Your task to perform on an android device: Check the weather Image 0: 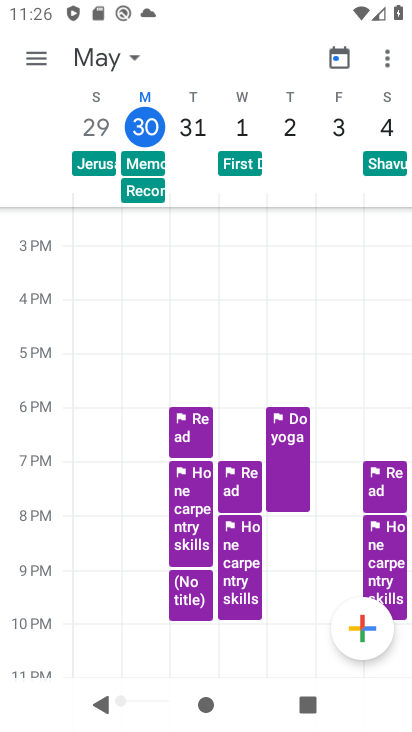
Step 0: press home button
Your task to perform on an android device: Check the weather Image 1: 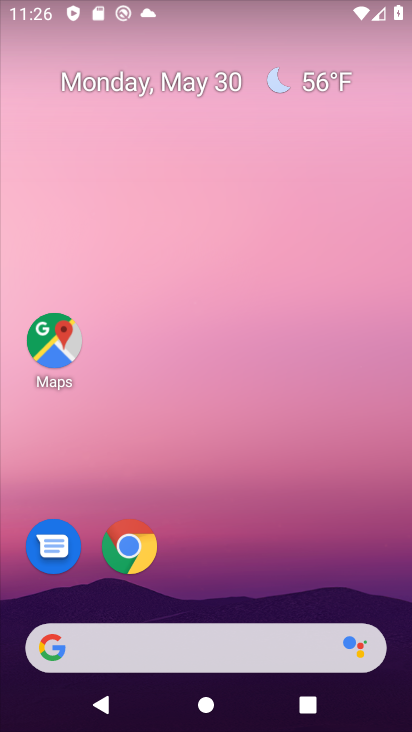
Step 1: drag from (255, 552) to (167, 21)
Your task to perform on an android device: Check the weather Image 2: 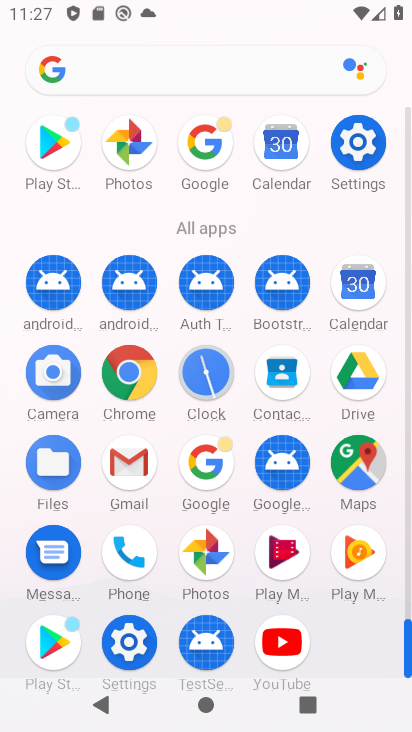
Step 2: click (202, 141)
Your task to perform on an android device: Check the weather Image 3: 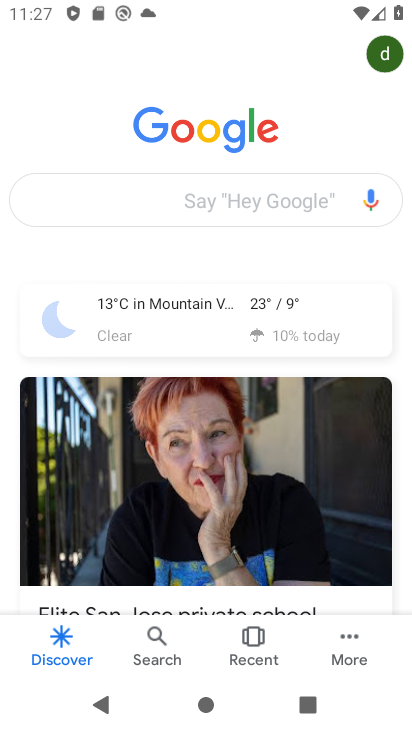
Step 3: click (185, 306)
Your task to perform on an android device: Check the weather Image 4: 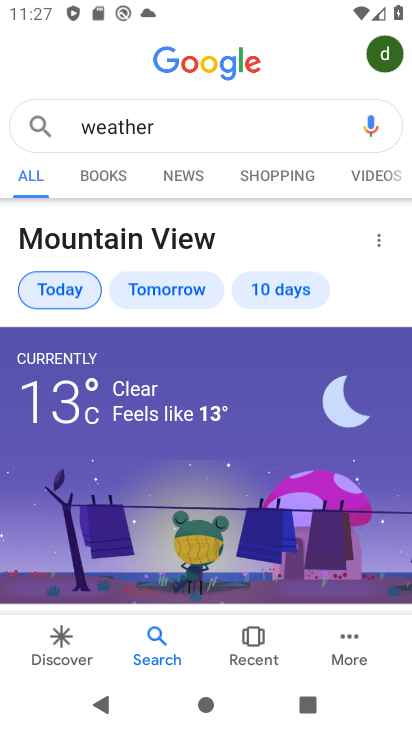
Step 4: task complete